Your task to perform on an android device: Do I have any events this weekend? Image 0: 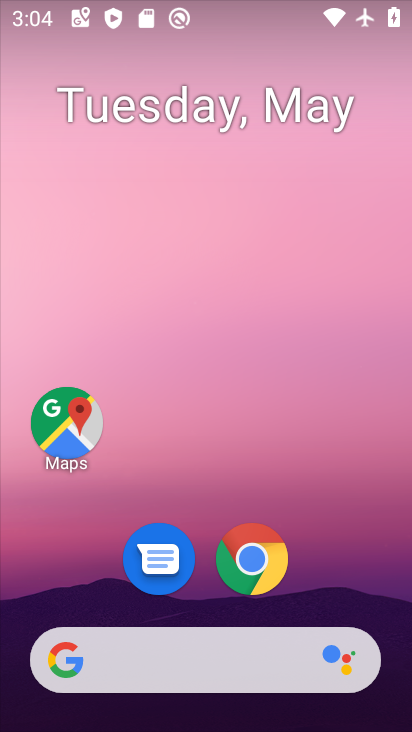
Step 0: drag from (187, 670) to (335, 76)
Your task to perform on an android device: Do I have any events this weekend? Image 1: 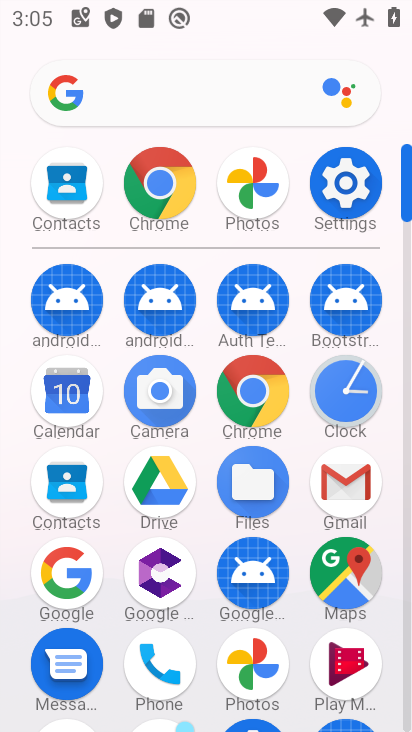
Step 1: click (66, 386)
Your task to perform on an android device: Do I have any events this weekend? Image 2: 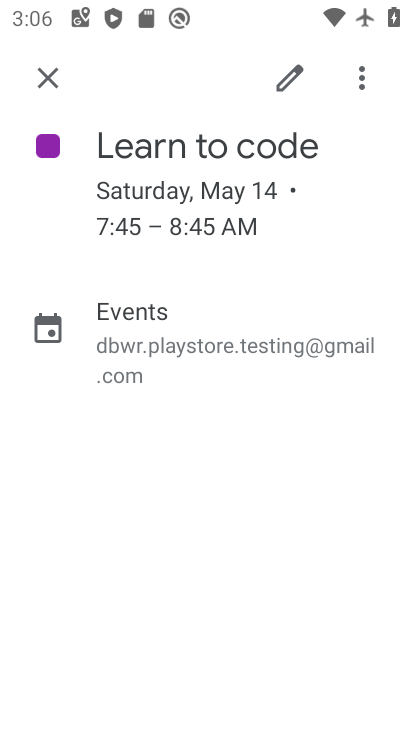
Step 2: task complete